Your task to perform on an android device: What is the news today? Image 0: 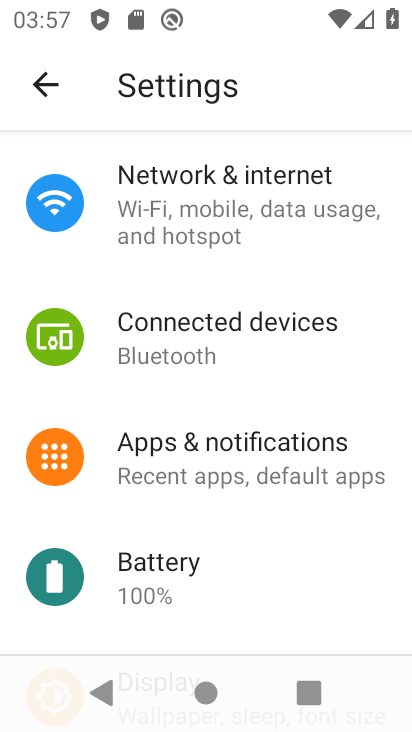
Step 0: press home button
Your task to perform on an android device: What is the news today? Image 1: 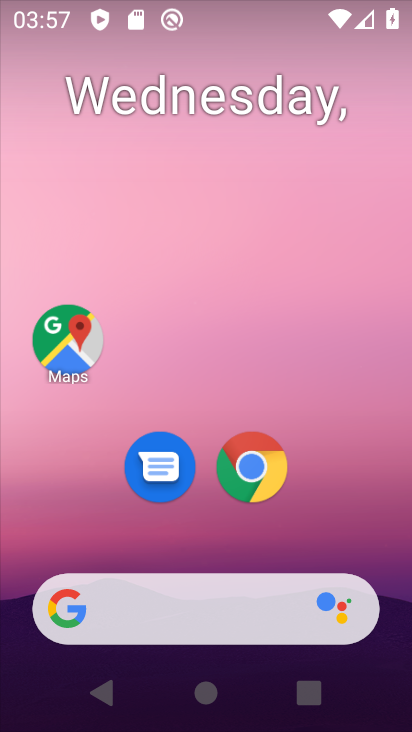
Step 1: task complete